Your task to perform on an android device: see sites visited before in the chrome app Image 0: 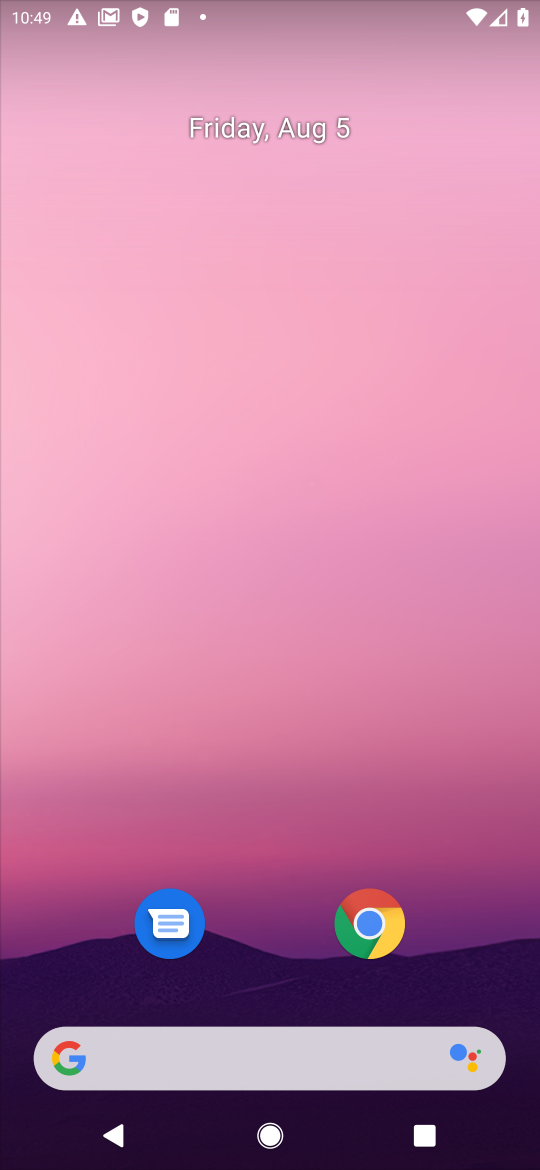
Step 0: drag from (237, 1069) to (279, 146)
Your task to perform on an android device: see sites visited before in the chrome app Image 1: 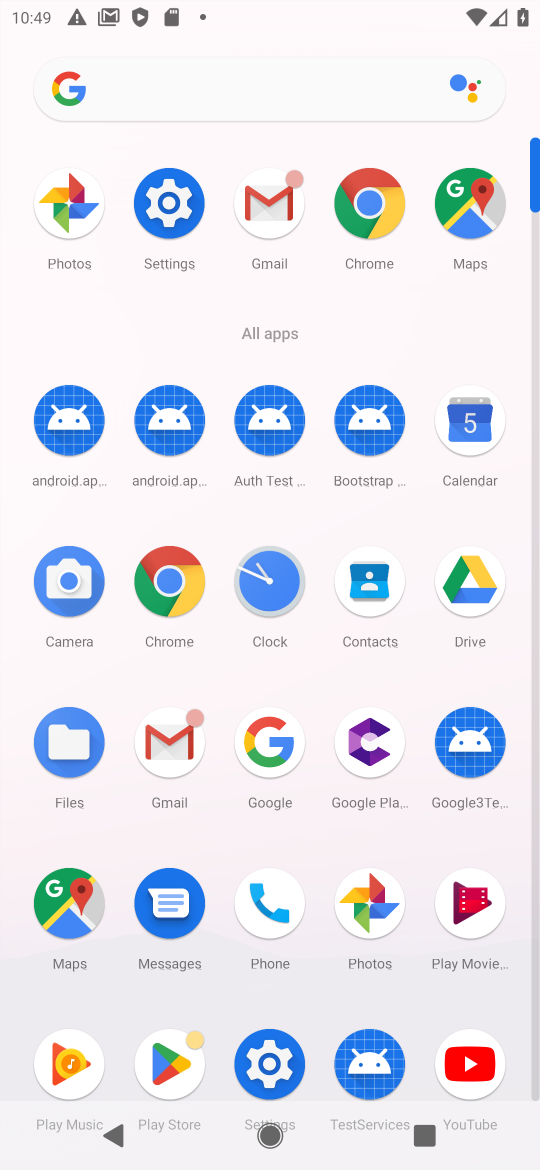
Step 1: click (155, 547)
Your task to perform on an android device: see sites visited before in the chrome app Image 2: 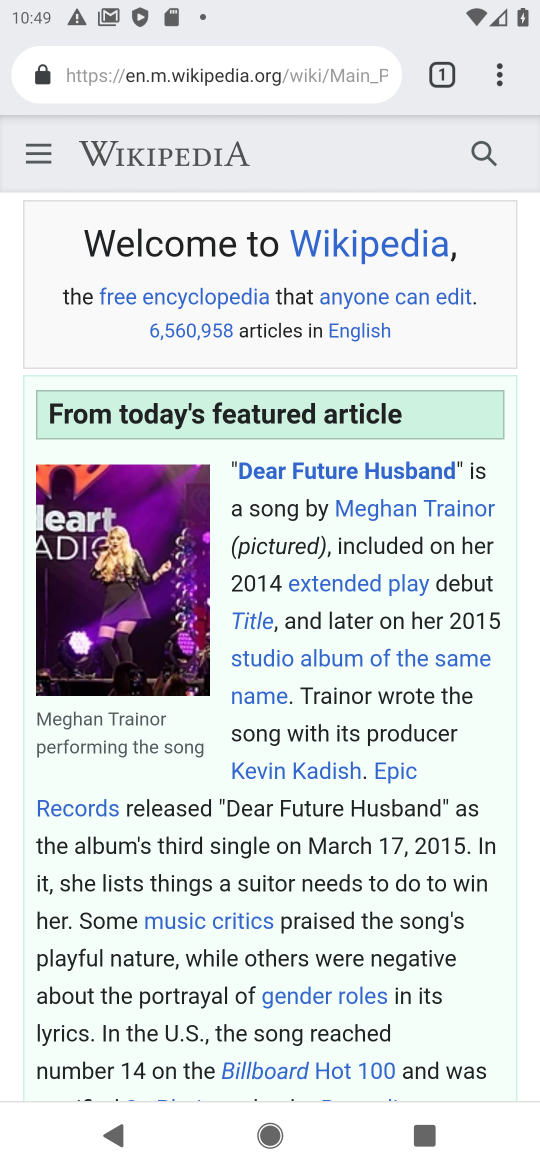
Step 2: click (495, 67)
Your task to perform on an android device: see sites visited before in the chrome app Image 3: 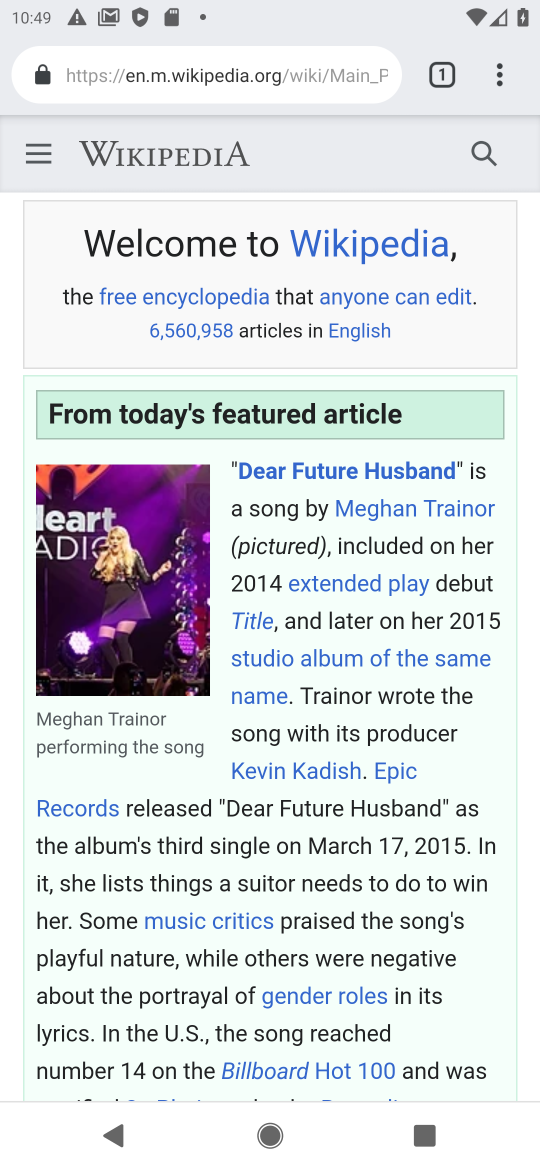
Step 3: drag from (506, 117) to (481, 233)
Your task to perform on an android device: see sites visited before in the chrome app Image 4: 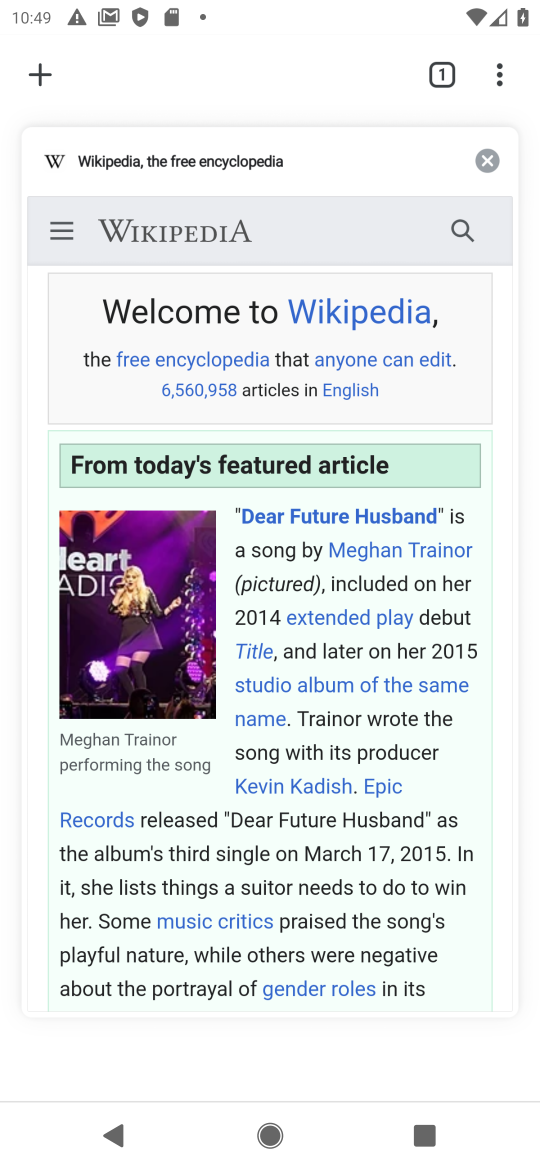
Step 4: click (498, 70)
Your task to perform on an android device: see sites visited before in the chrome app Image 5: 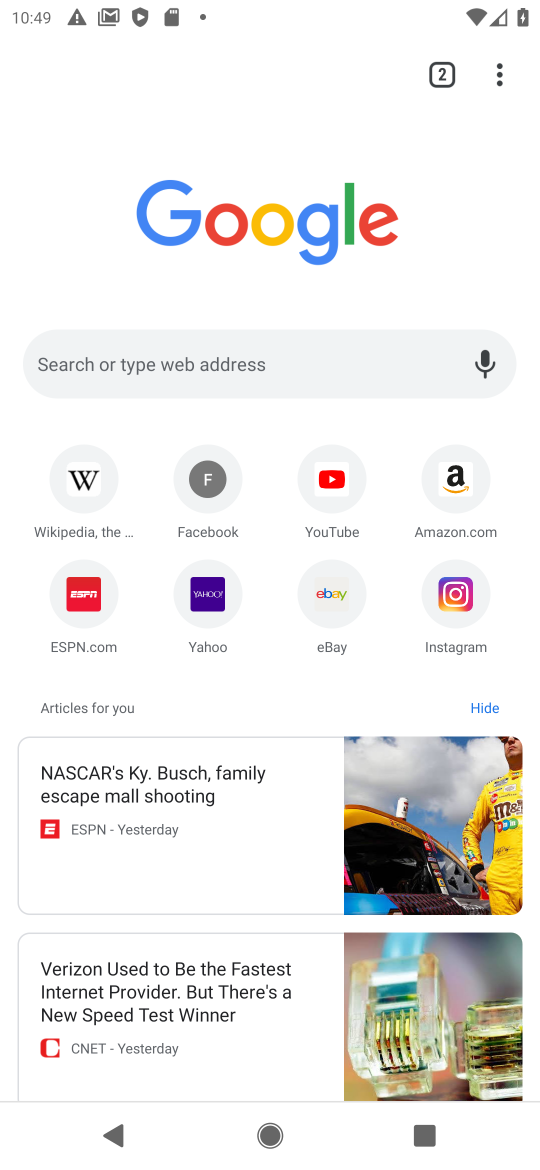
Step 5: task complete